Your task to perform on an android device: Open privacy settings Image 0: 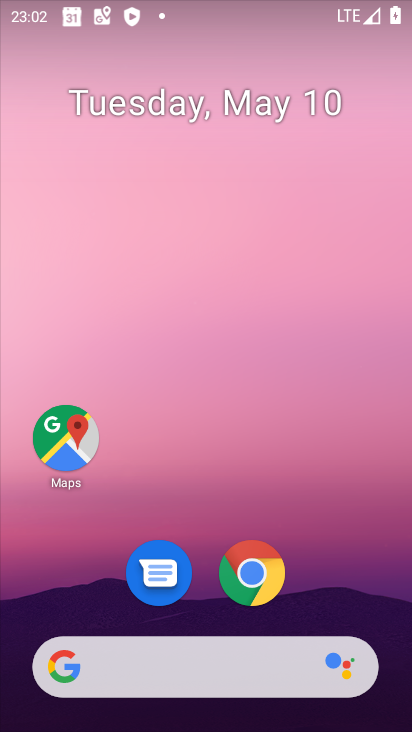
Step 0: drag from (314, 588) to (147, 6)
Your task to perform on an android device: Open privacy settings Image 1: 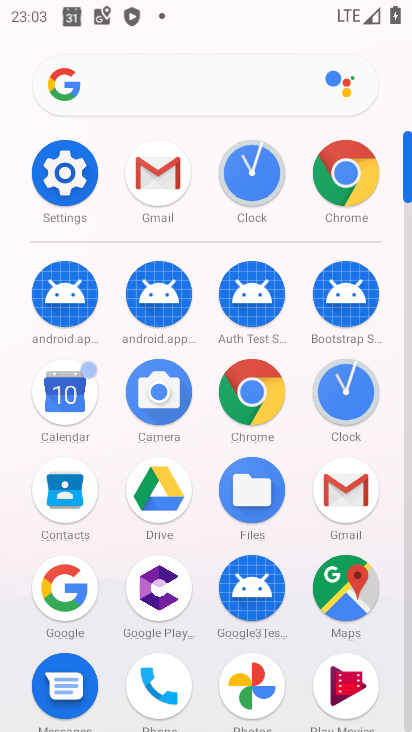
Step 1: click (62, 168)
Your task to perform on an android device: Open privacy settings Image 2: 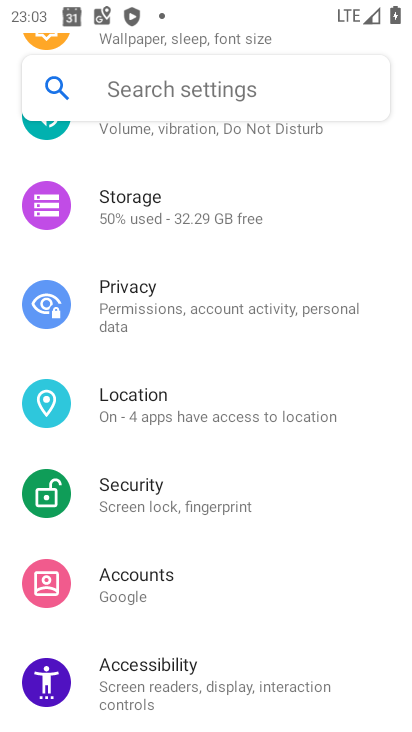
Step 2: click (126, 289)
Your task to perform on an android device: Open privacy settings Image 3: 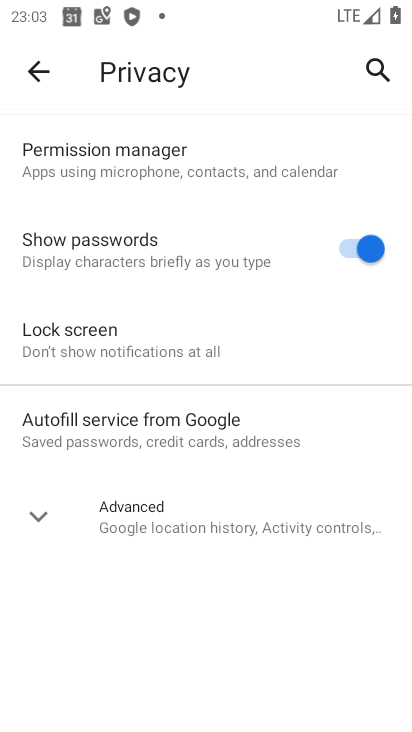
Step 3: task complete